Your task to perform on an android device: Open battery settings Image 0: 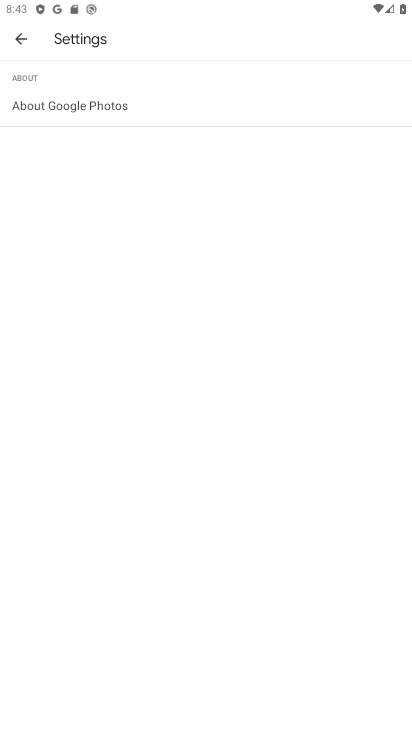
Step 0: drag from (240, 7) to (256, 708)
Your task to perform on an android device: Open battery settings Image 1: 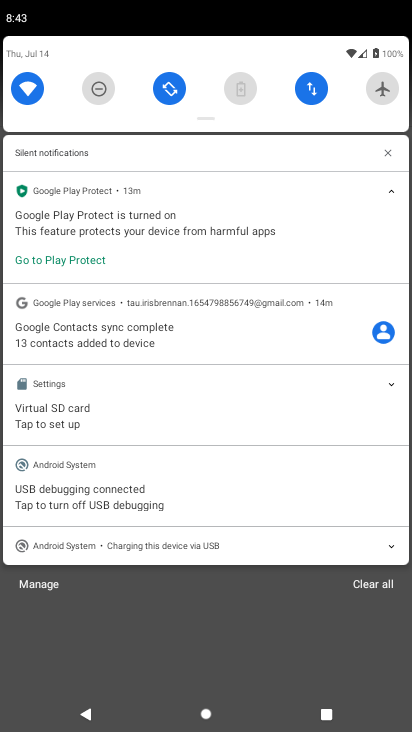
Step 1: click (251, 85)
Your task to perform on an android device: Open battery settings Image 2: 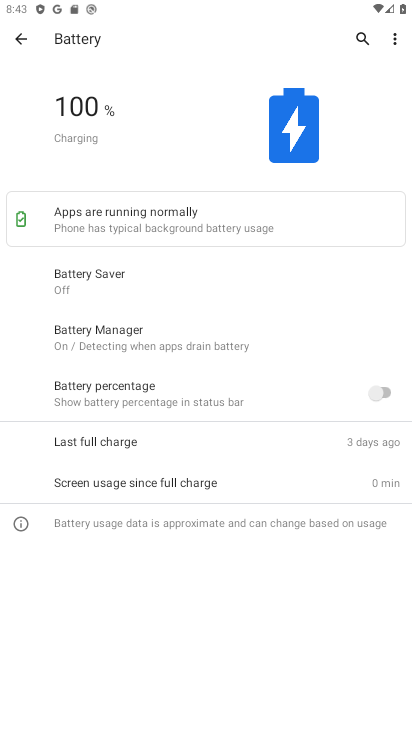
Step 2: task complete